Your task to perform on an android device: Open my contact list Image 0: 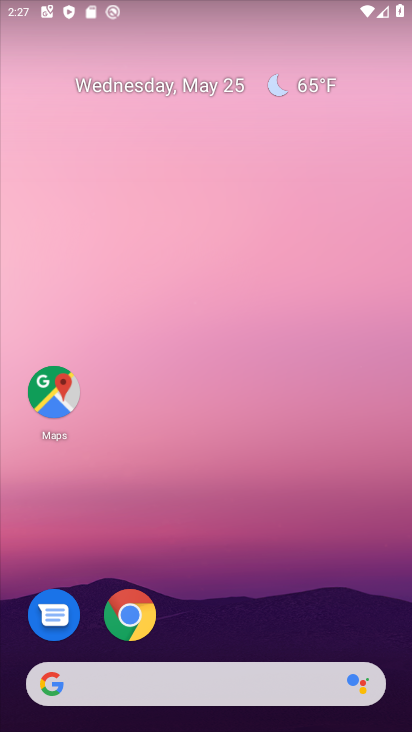
Step 0: drag from (388, 569) to (375, 177)
Your task to perform on an android device: Open my contact list Image 1: 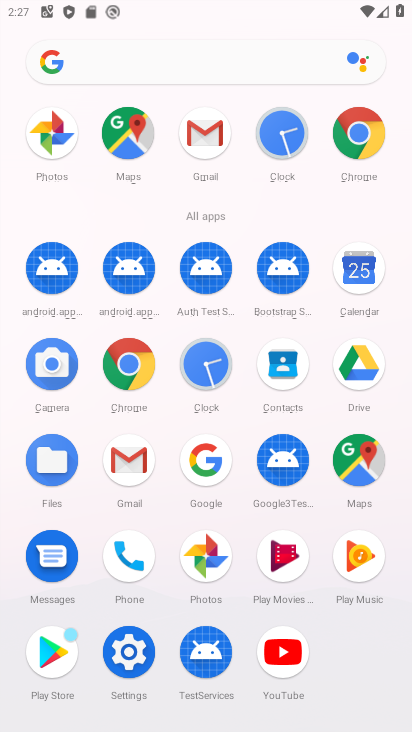
Step 1: click (281, 361)
Your task to perform on an android device: Open my contact list Image 2: 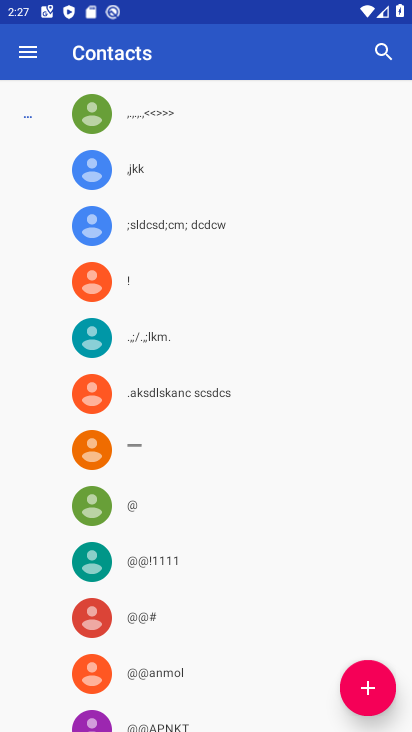
Step 2: click (350, 697)
Your task to perform on an android device: Open my contact list Image 3: 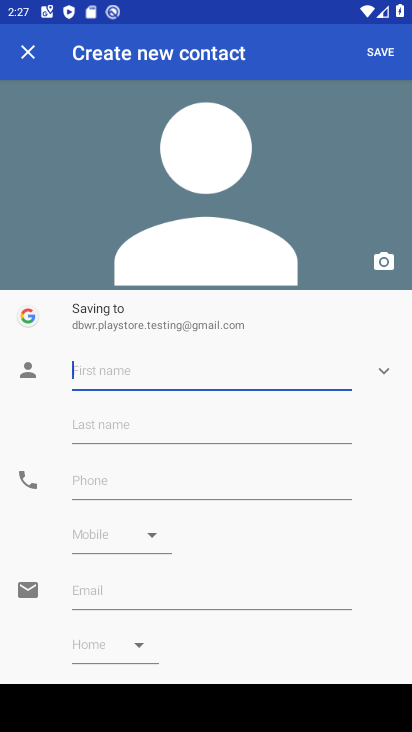
Step 3: click (20, 53)
Your task to perform on an android device: Open my contact list Image 4: 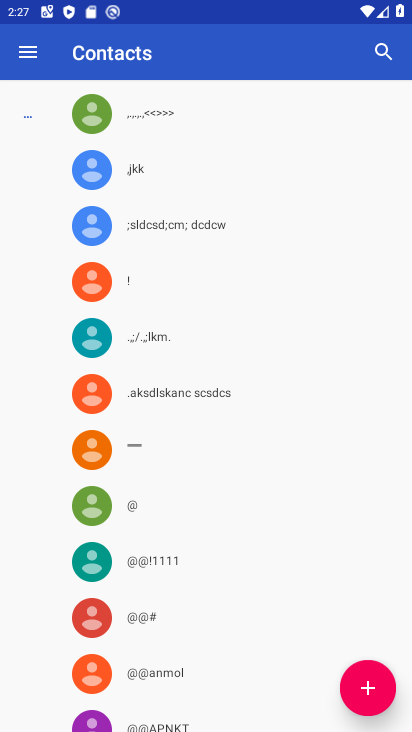
Step 4: task complete